Your task to perform on an android device: uninstall "McDonald's" Image 0: 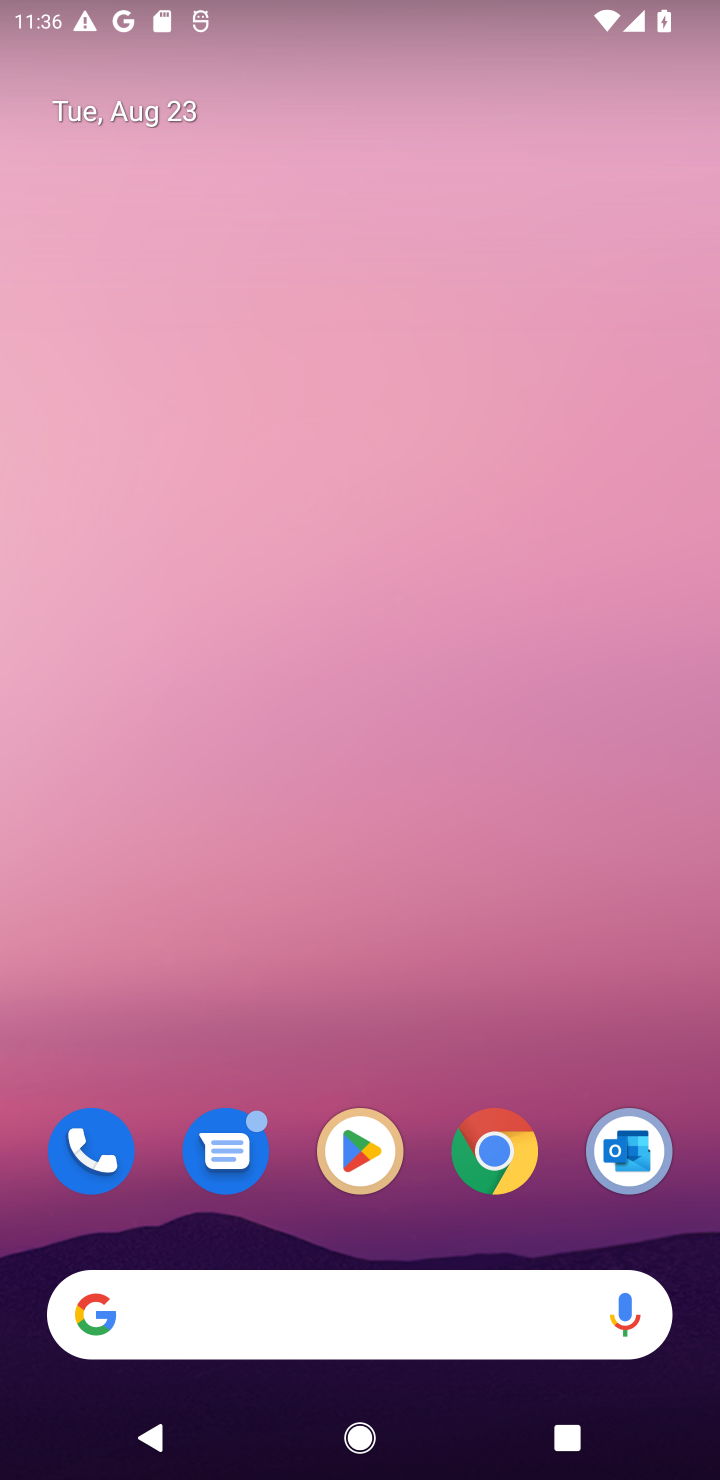
Step 0: click (357, 1185)
Your task to perform on an android device: uninstall "McDonald's" Image 1: 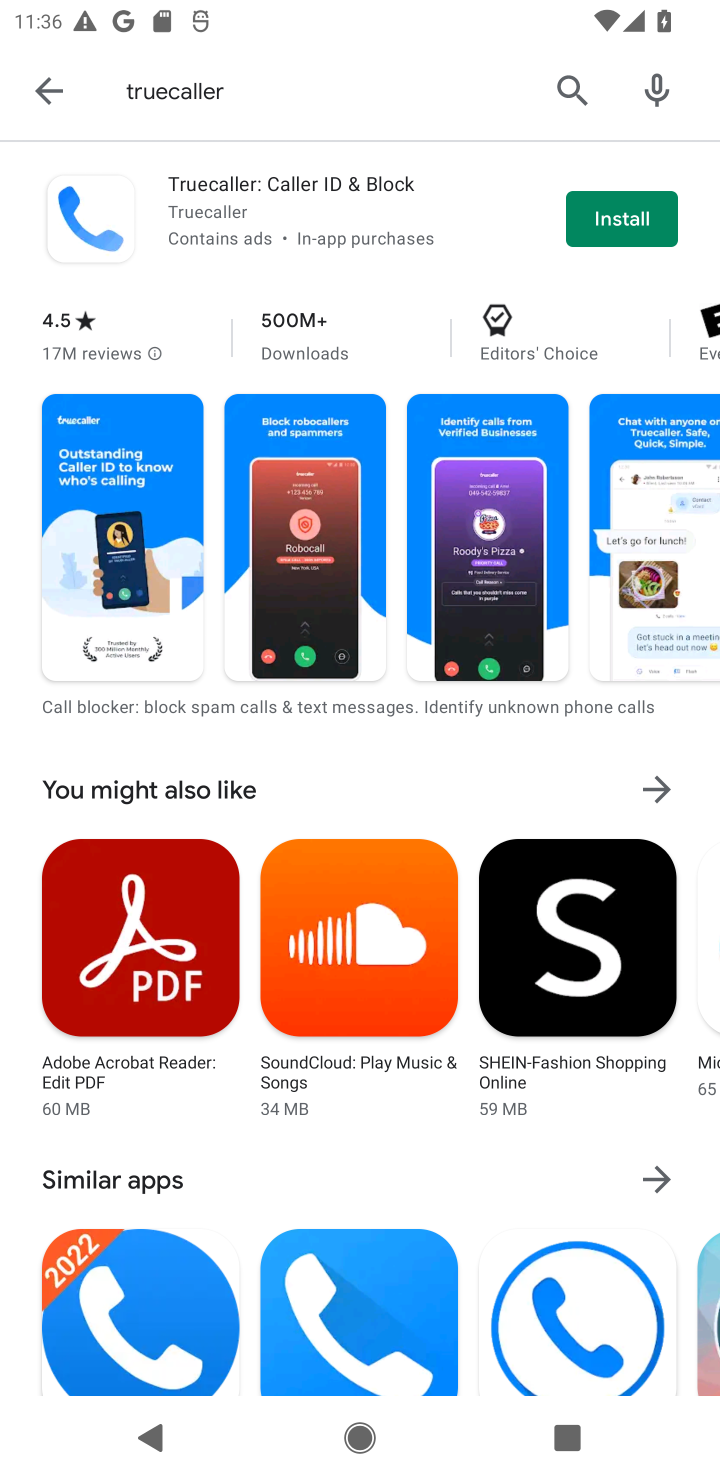
Step 1: click (568, 81)
Your task to perform on an android device: uninstall "McDonald's" Image 2: 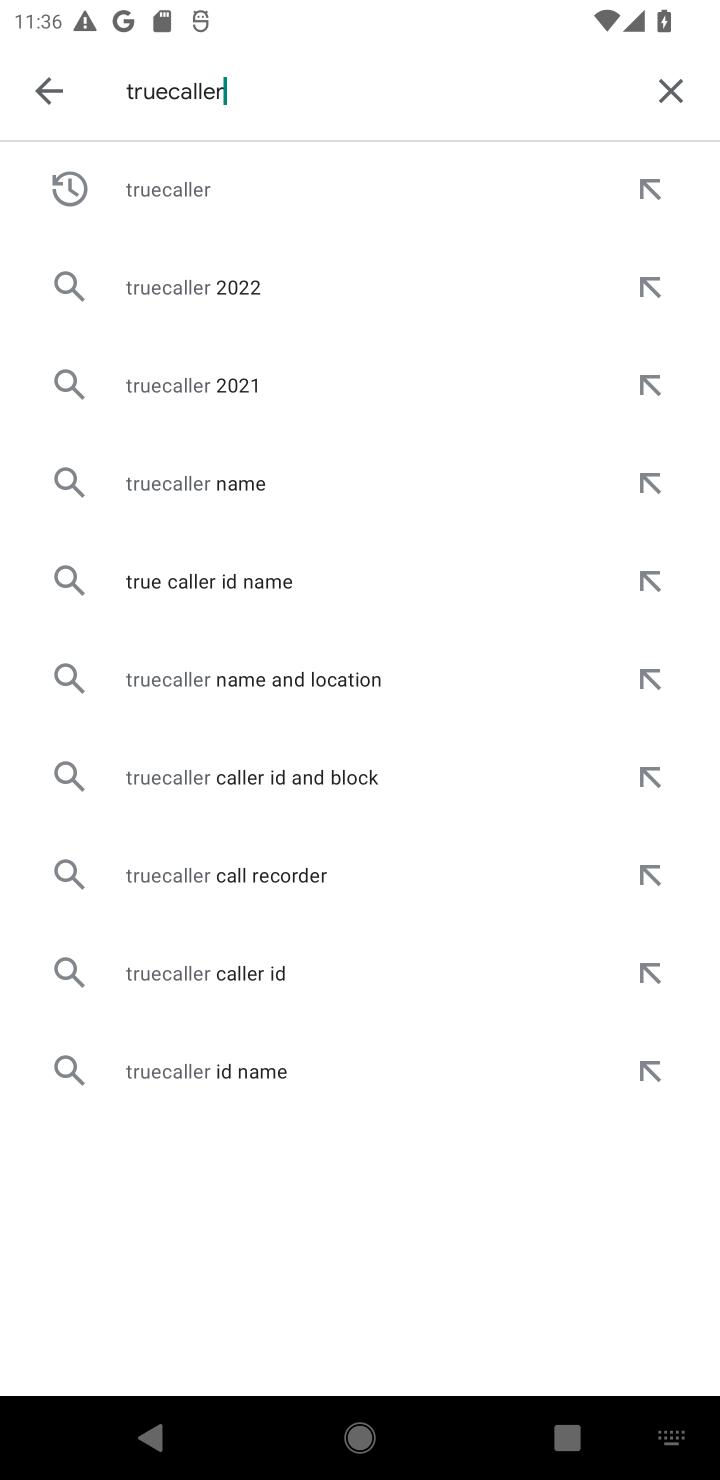
Step 2: click (663, 76)
Your task to perform on an android device: uninstall "McDonald's" Image 3: 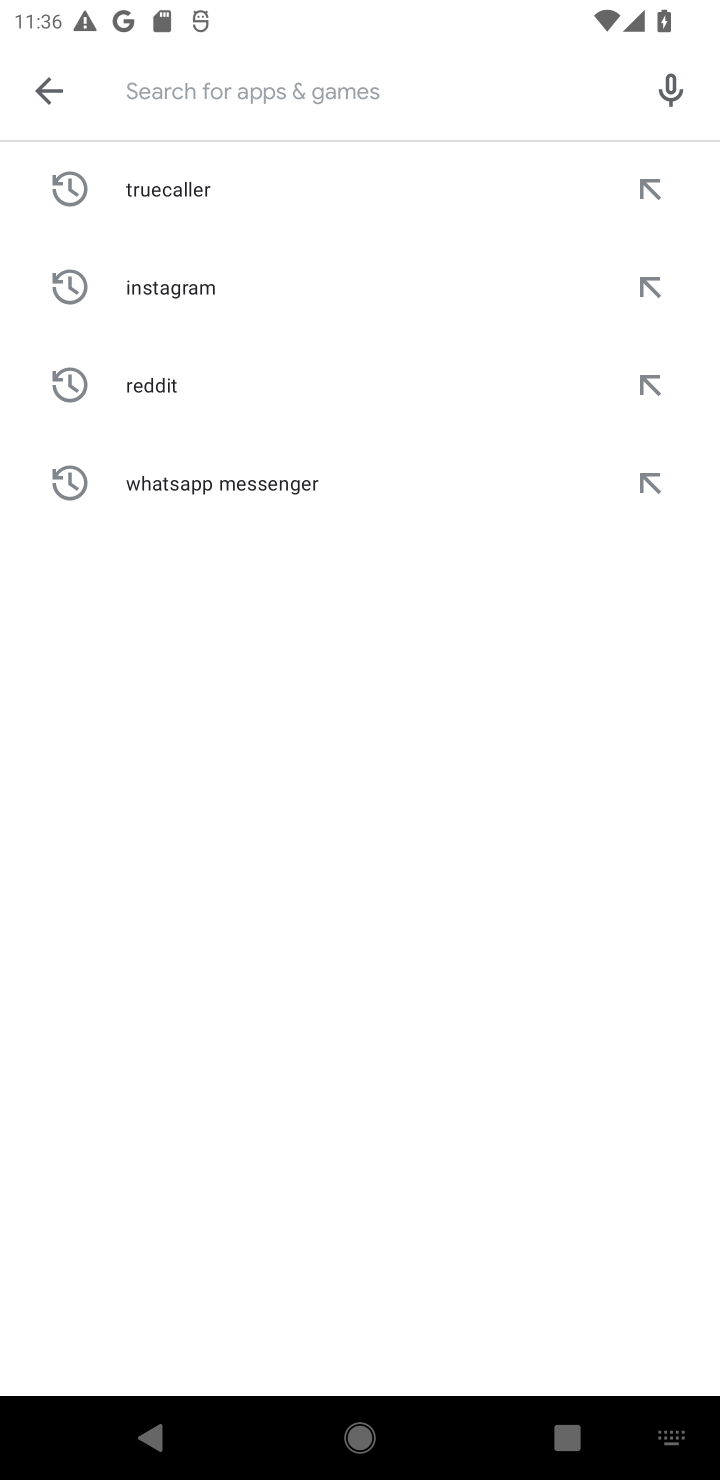
Step 3: type "McDonald's"
Your task to perform on an android device: uninstall "McDonald's" Image 4: 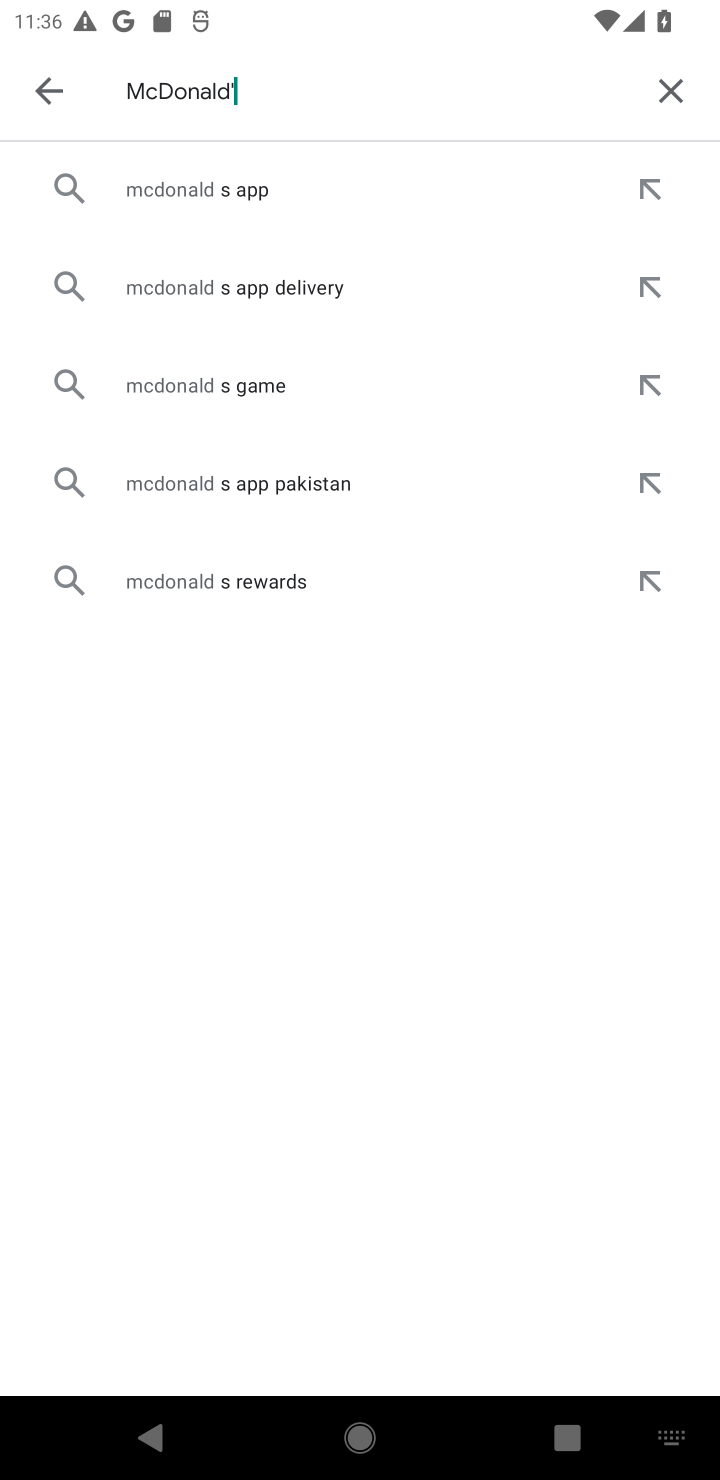
Step 4: type ""
Your task to perform on an android device: uninstall "McDonald's" Image 5: 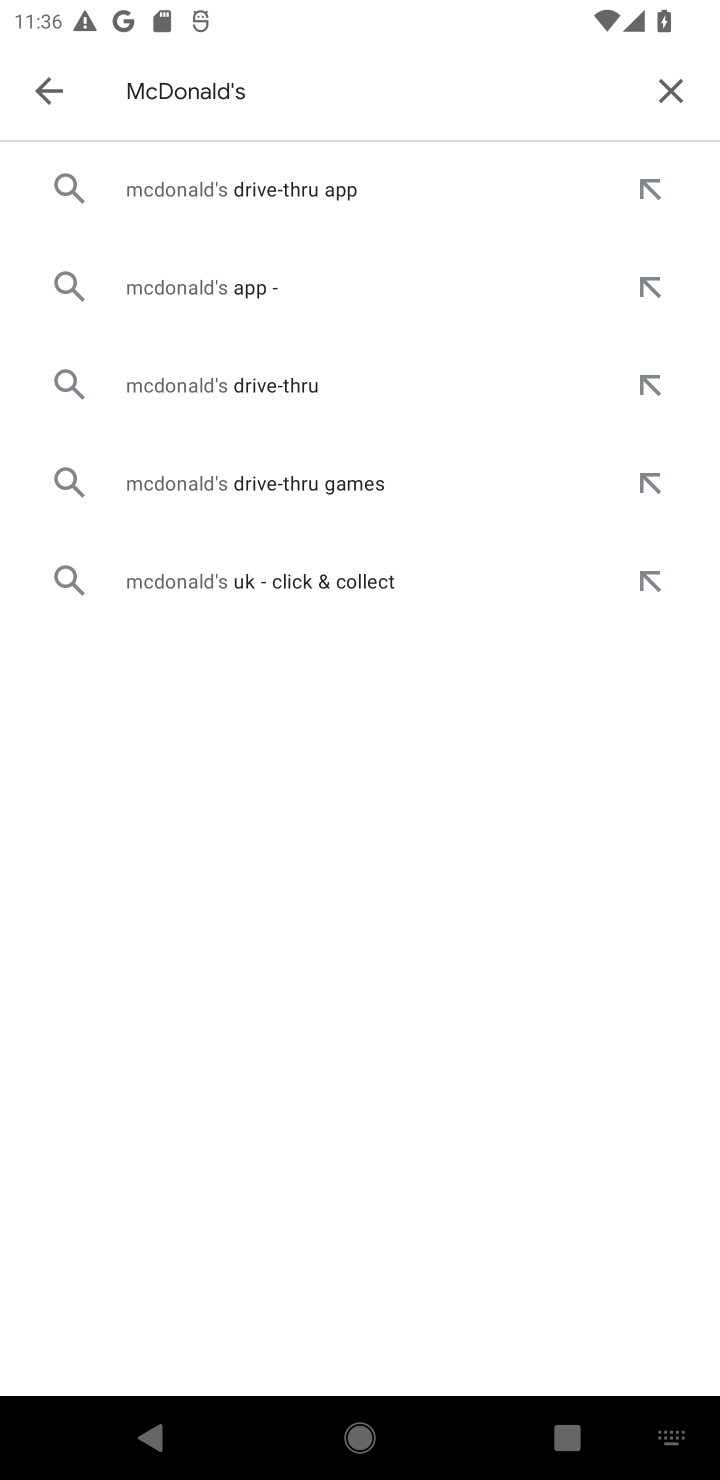
Step 5: click (265, 212)
Your task to perform on an android device: uninstall "McDonald's" Image 6: 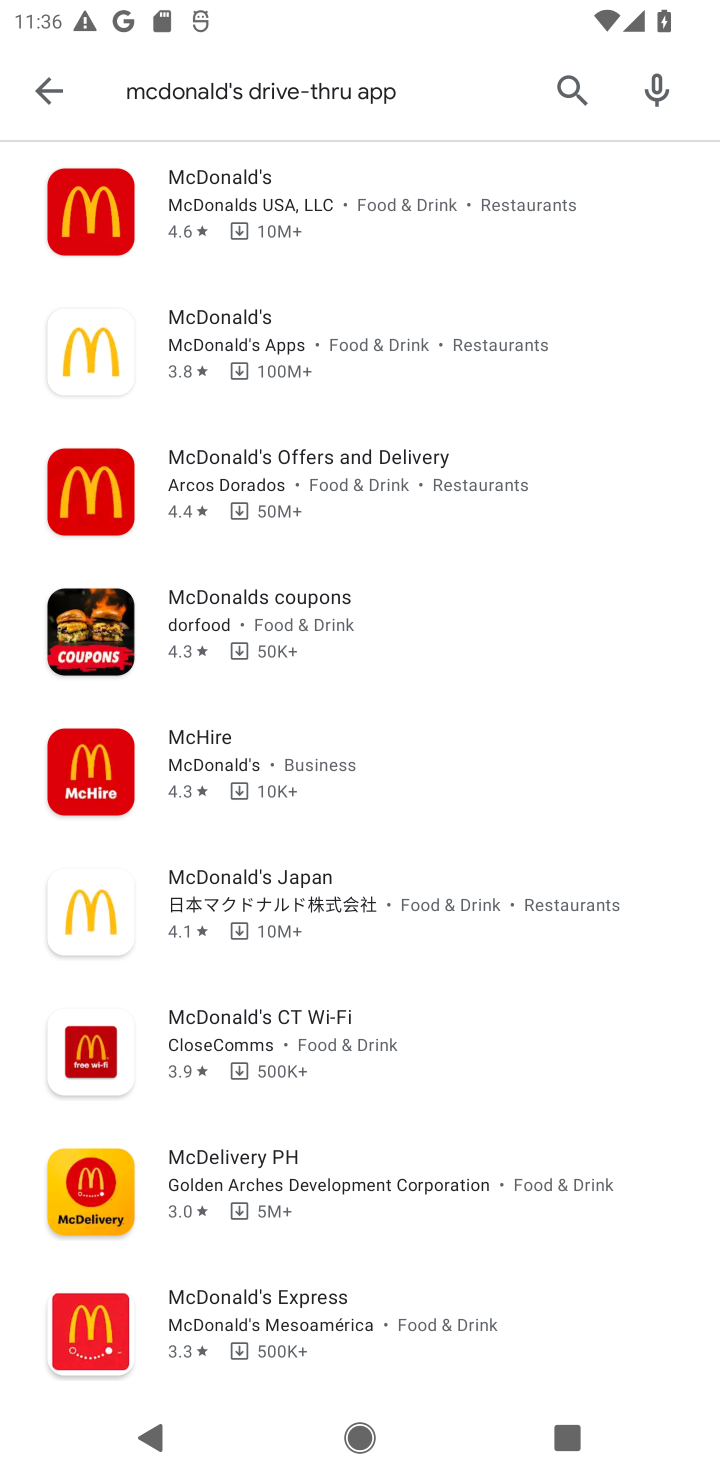
Step 6: click (265, 212)
Your task to perform on an android device: uninstall "McDonald's" Image 7: 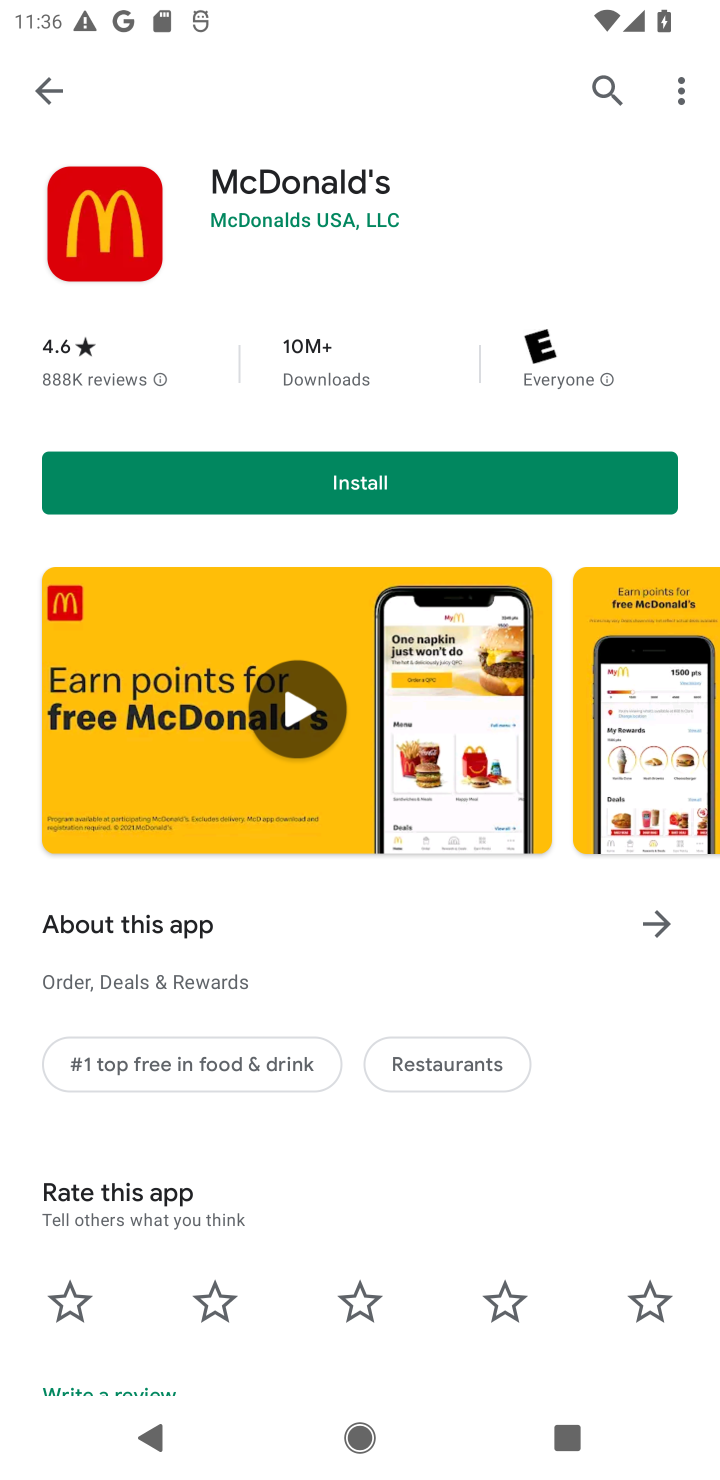
Step 7: task complete